Your task to perform on an android device: toggle translation in the chrome app Image 0: 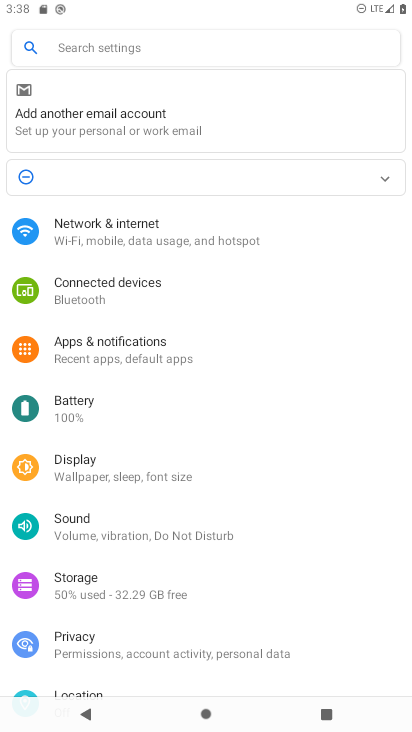
Step 0: press home button
Your task to perform on an android device: toggle translation in the chrome app Image 1: 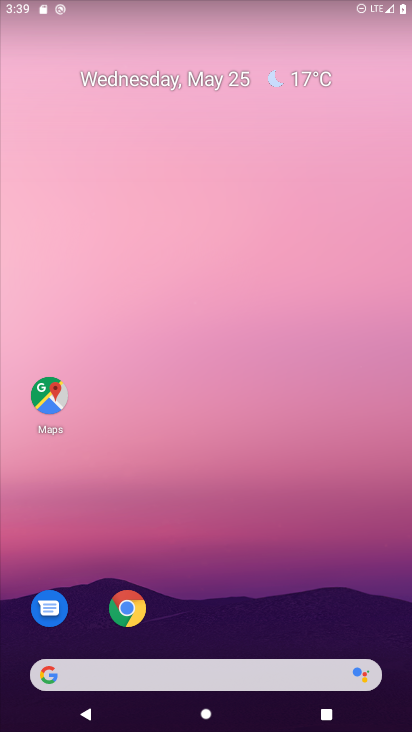
Step 1: click (129, 608)
Your task to perform on an android device: toggle translation in the chrome app Image 2: 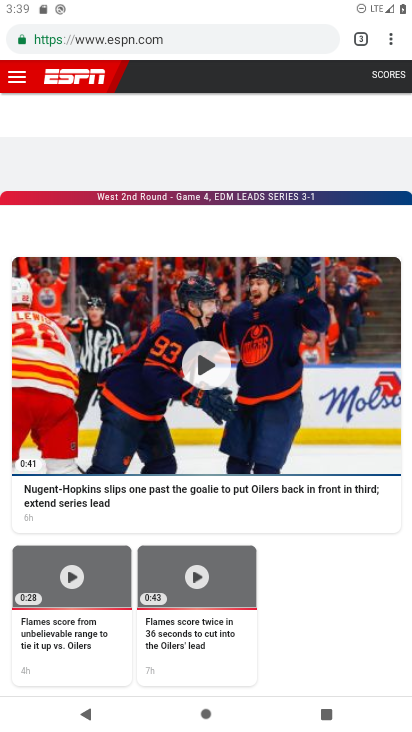
Step 2: click (391, 40)
Your task to perform on an android device: toggle translation in the chrome app Image 3: 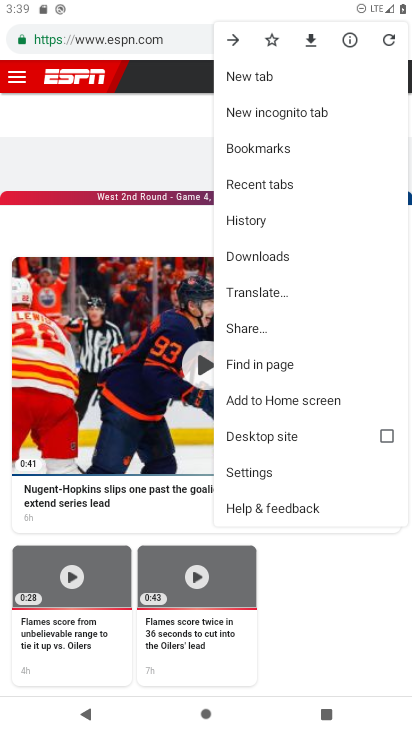
Step 3: click (257, 467)
Your task to perform on an android device: toggle translation in the chrome app Image 4: 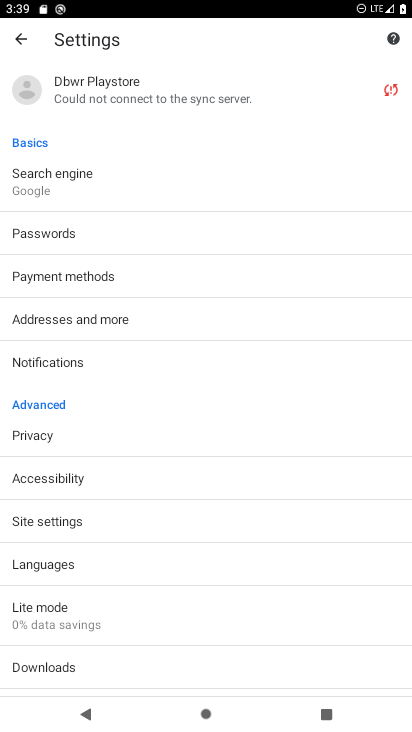
Step 4: click (59, 572)
Your task to perform on an android device: toggle translation in the chrome app Image 5: 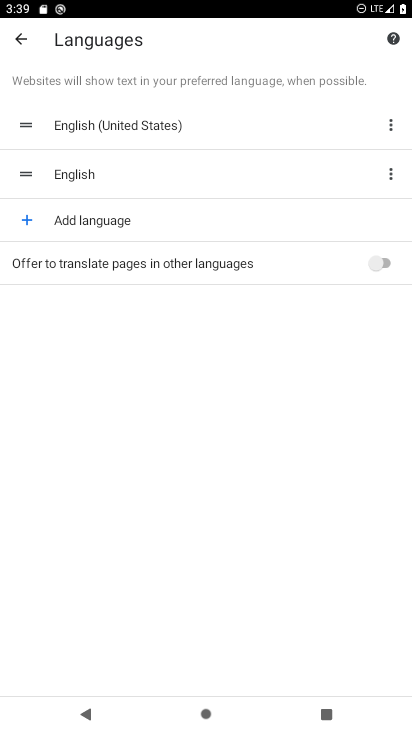
Step 5: click (384, 262)
Your task to perform on an android device: toggle translation in the chrome app Image 6: 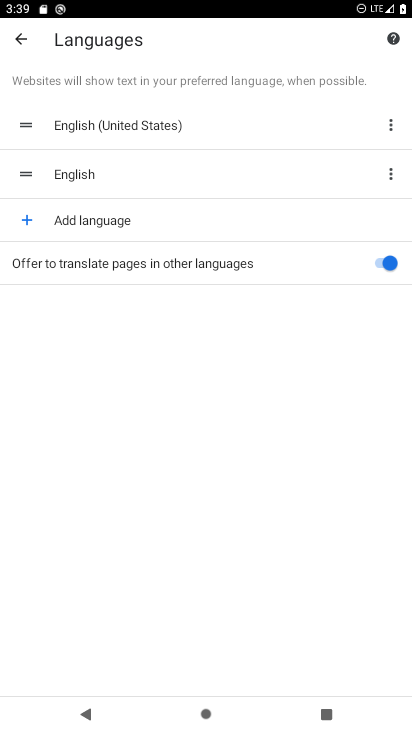
Step 6: task complete